Your task to perform on an android device: make emails show in primary in the gmail app Image 0: 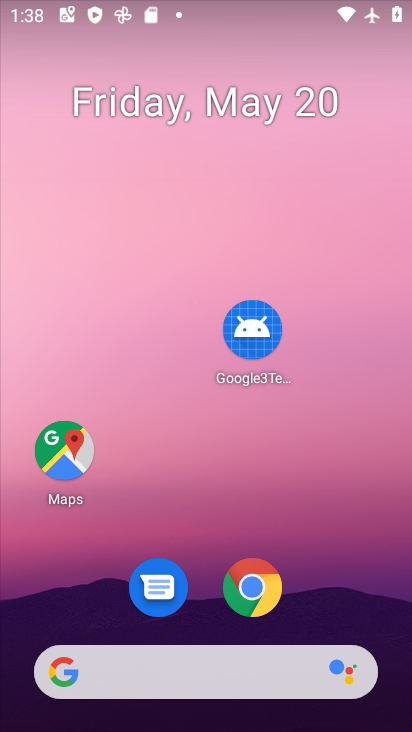
Step 0: drag from (348, 557) to (283, 119)
Your task to perform on an android device: make emails show in primary in the gmail app Image 1: 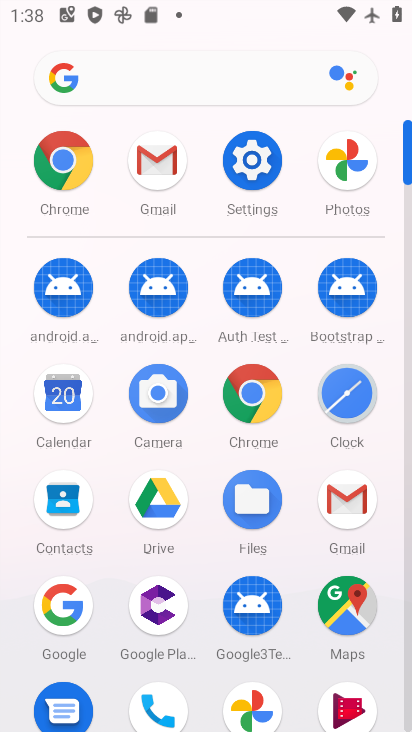
Step 1: click (336, 497)
Your task to perform on an android device: make emails show in primary in the gmail app Image 2: 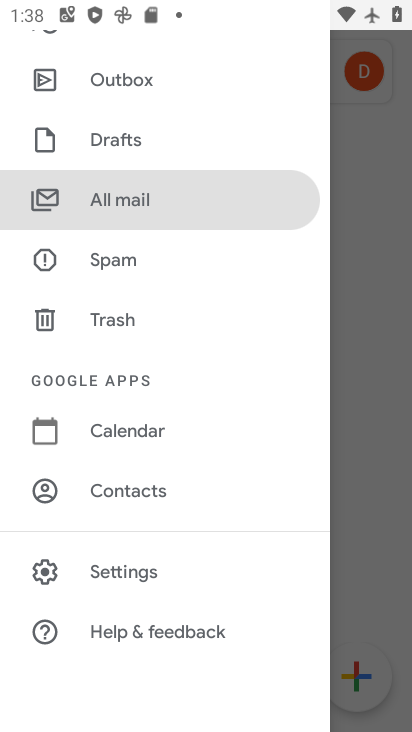
Step 2: drag from (176, 144) to (178, 584)
Your task to perform on an android device: make emails show in primary in the gmail app Image 3: 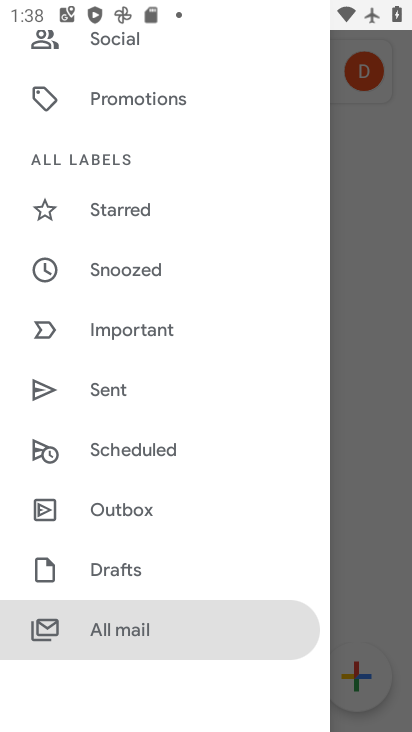
Step 3: drag from (166, 230) to (179, 656)
Your task to perform on an android device: make emails show in primary in the gmail app Image 4: 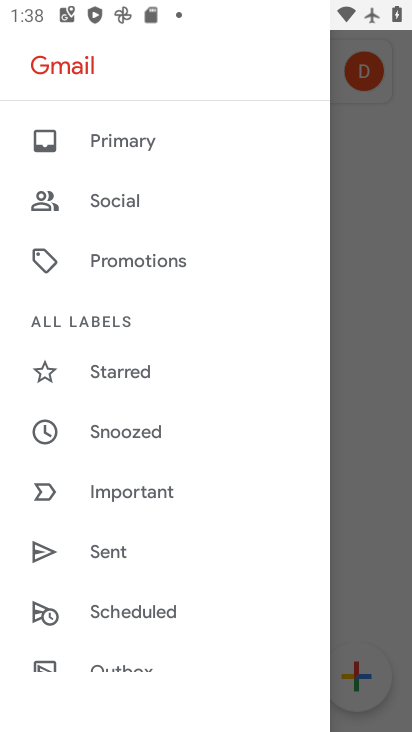
Step 4: click (122, 138)
Your task to perform on an android device: make emails show in primary in the gmail app Image 5: 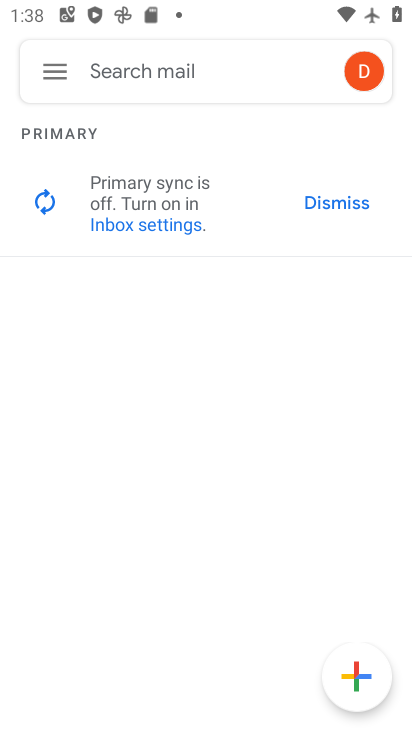
Step 5: task complete